Your task to perform on an android device: refresh tabs in the chrome app Image 0: 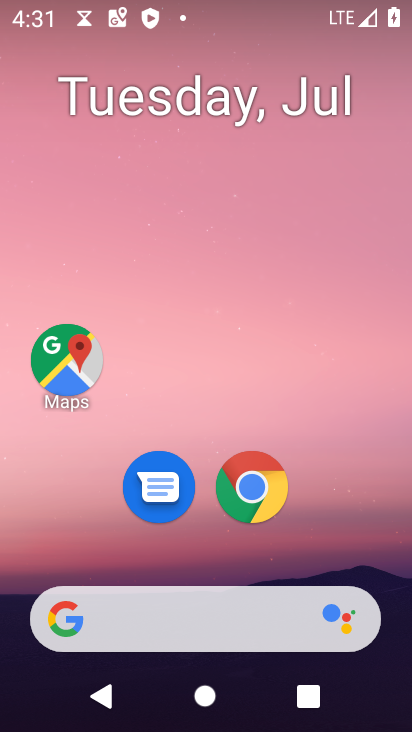
Step 0: click (254, 477)
Your task to perform on an android device: refresh tabs in the chrome app Image 1: 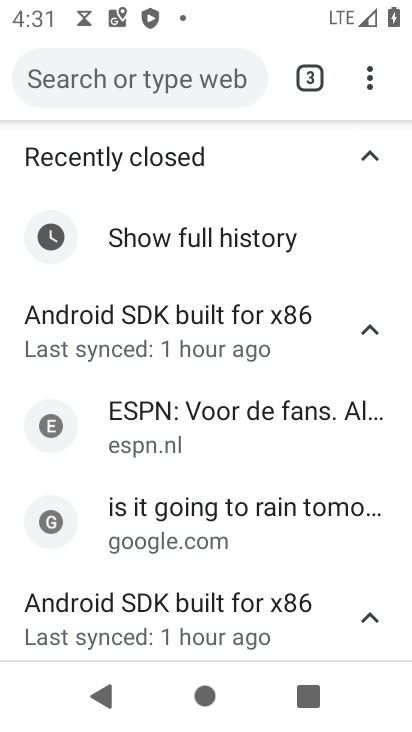
Step 1: click (367, 79)
Your task to perform on an android device: refresh tabs in the chrome app Image 2: 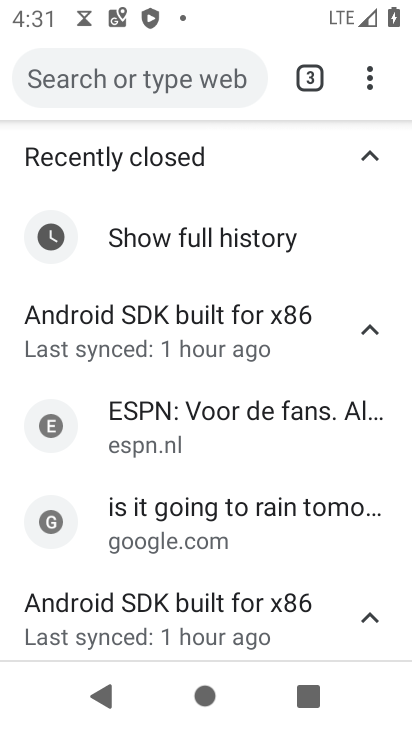
Step 2: task complete